Your task to perform on an android device: Open sound settings Image 0: 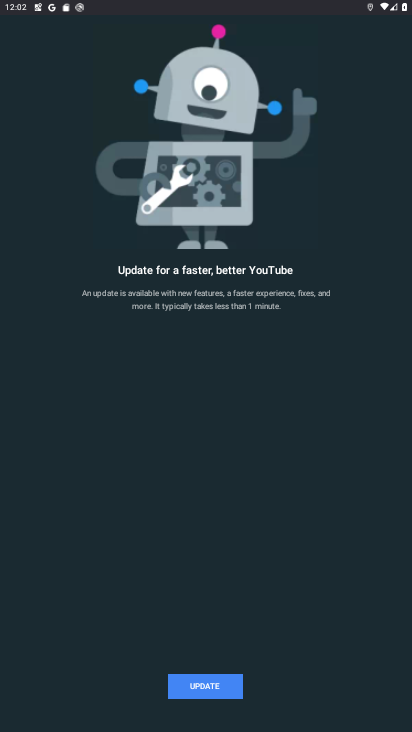
Step 0: press home button
Your task to perform on an android device: Open sound settings Image 1: 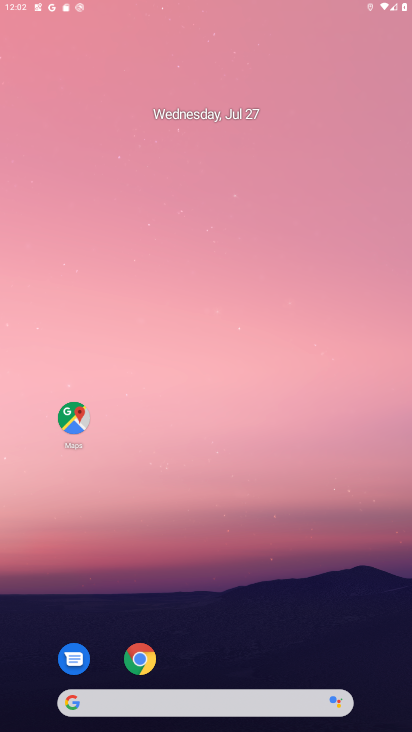
Step 1: drag from (222, 702) to (349, 20)
Your task to perform on an android device: Open sound settings Image 2: 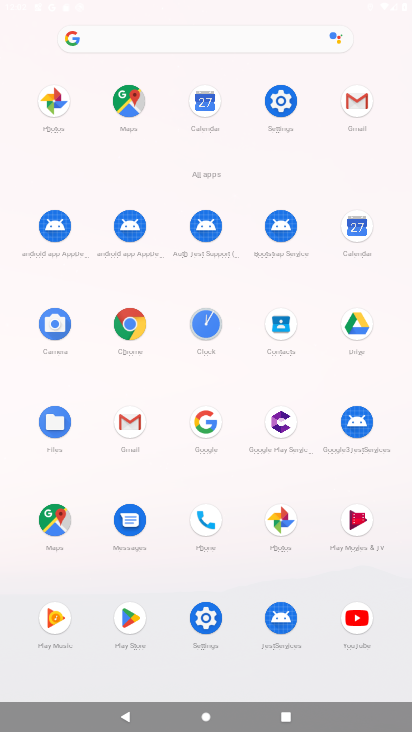
Step 2: click (275, 88)
Your task to perform on an android device: Open sound settings Image 3: 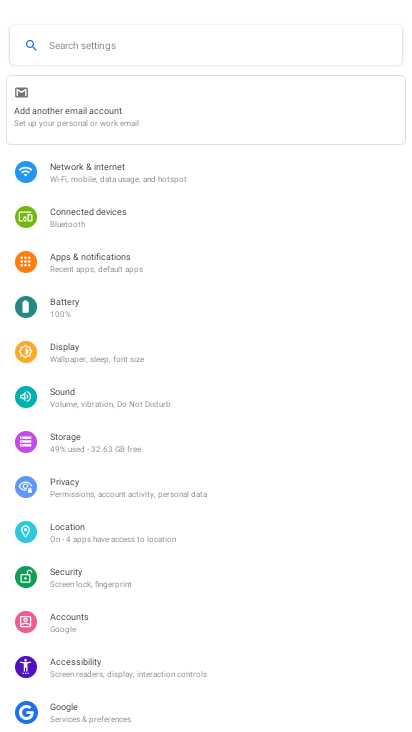
Step 3: click (72, 397)
Your task to perform on an android device: Open sound settings Image 4: 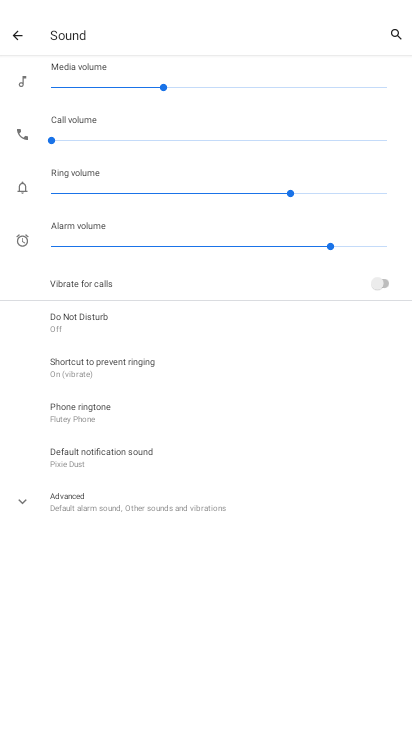
Step 4: task complete